Your task to perform on an android device: Find coffee shops on Maps Image 0: 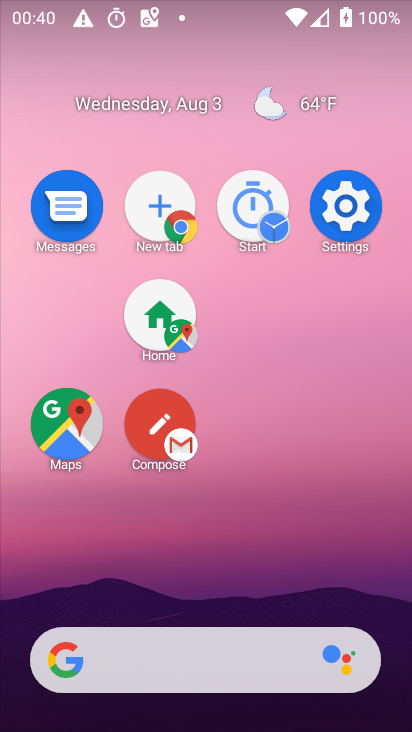
Step 0: drag from (243, 248) to (230, 151)
Your task to perform on an android device: Find coffee shops on Maps Image 1: 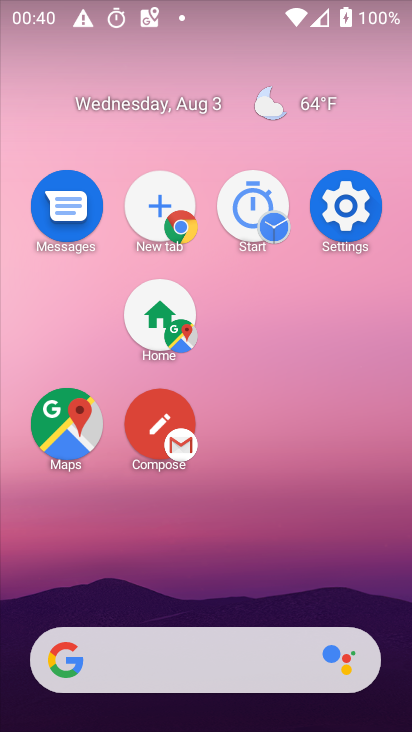
Step 1: drag from (378, 551) to (332, 193)
Your task to perform on an android device: Find coffee shops on Maps Image 2: 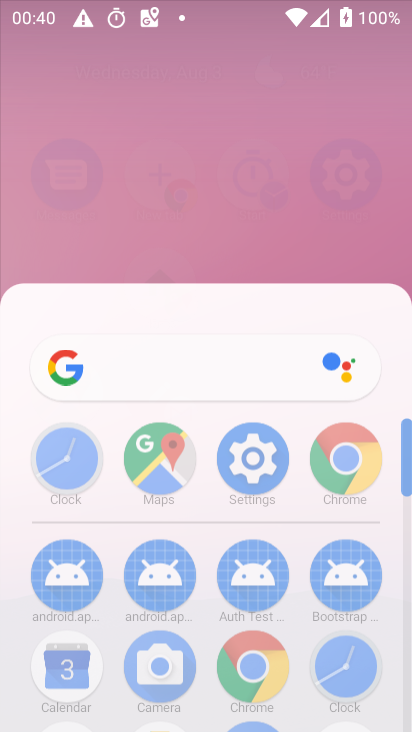
Step 2: drag from (353, 411) to (319, 173)
Your task to perform on an android device: Find coffee shops on Maps Image 3: 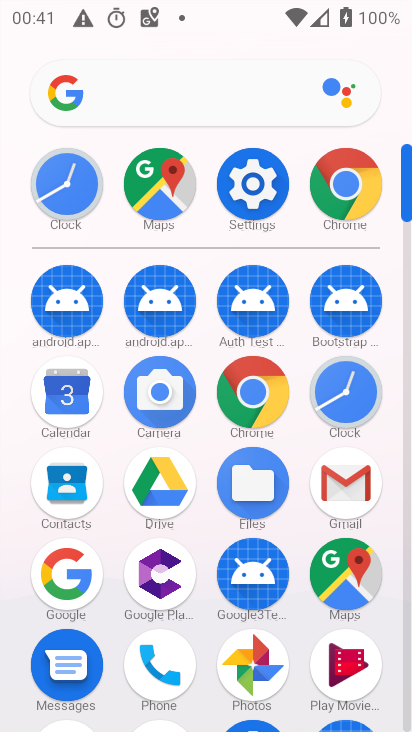
Step 3: click (348, 569)
Your task to perform on an android device: Find coffee shops on Maps Image 4: 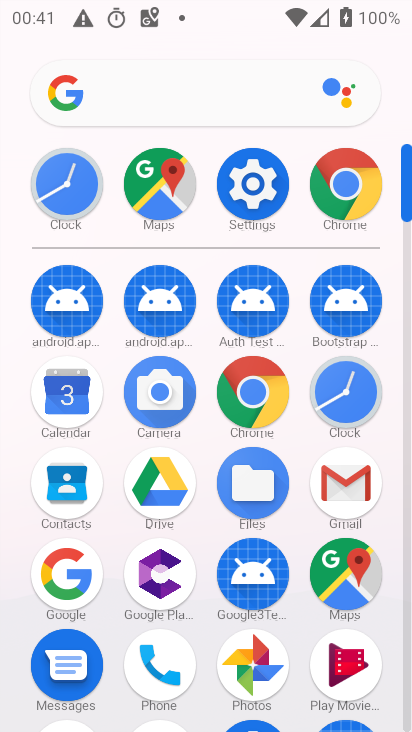
Step 4: click (350, 571)
Your task to perform on an android device: Find coffee shops on Maps Image 5: 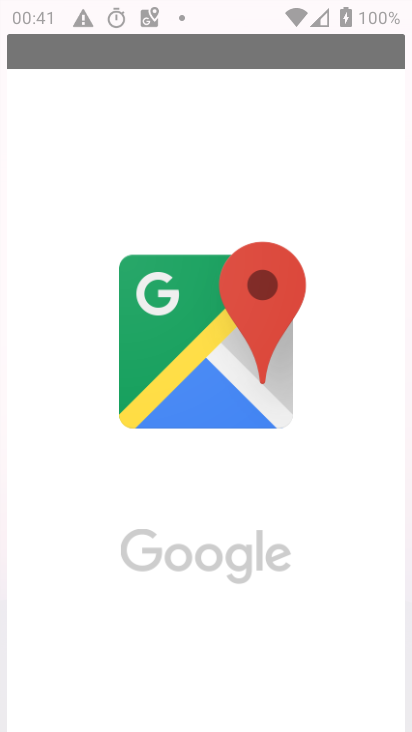
Step 5: click (365, 586)
Your task to perform on an android device: Find coffee shops on Maps Image 6: 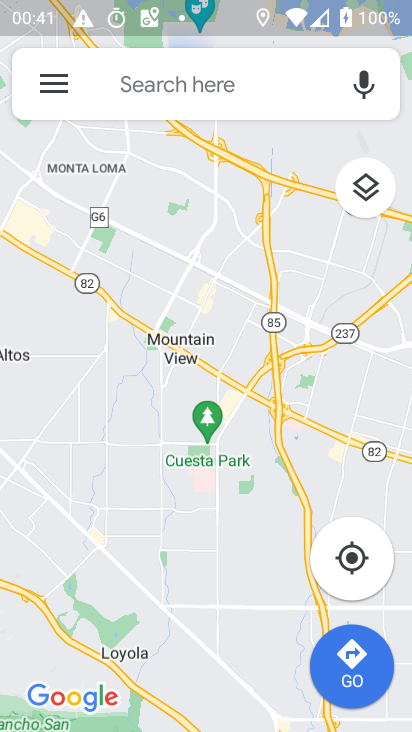
Step 6: click (110, 78)
Your task to perform on an android device: Find coffee shops on Maps Image 7: 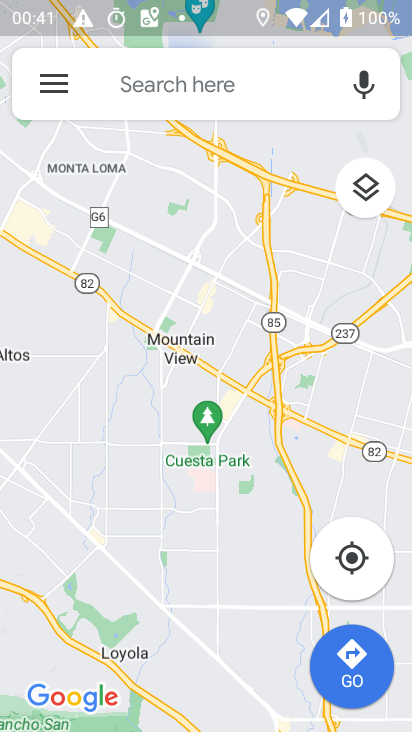
Step 7: click (125, 105)
Your task to perform on an android device: Find coffee shops on Maps Image 8: 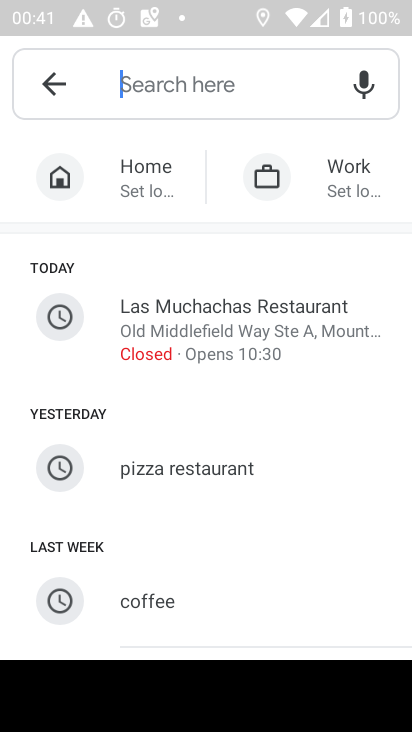
Step 8: type "cofee"
Your task to perform on an android device: Find coffee shops on Maps Image 9: 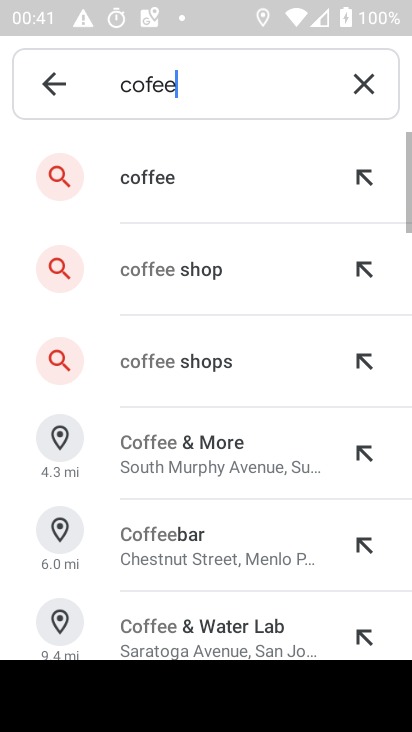
Step 9: click (175, 184)
Your task to perform on an android device: Find coffee shops on Maps Image 10: 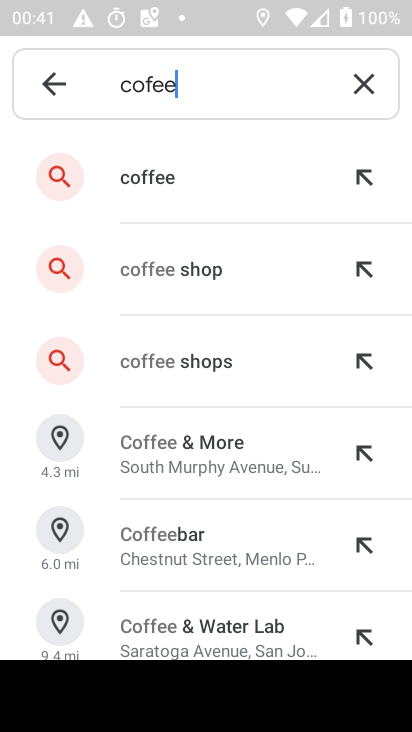
Step 10: click (175, 184)
Your task to perform on an android device: Find coffee shops on Maps Image 11: 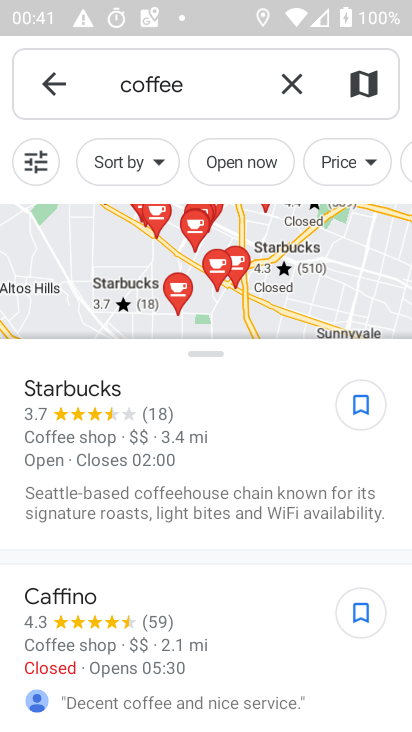
Step 11: click (105, 420)
Your task to perform on an android device: Find coffee shops on Maps Image 12: 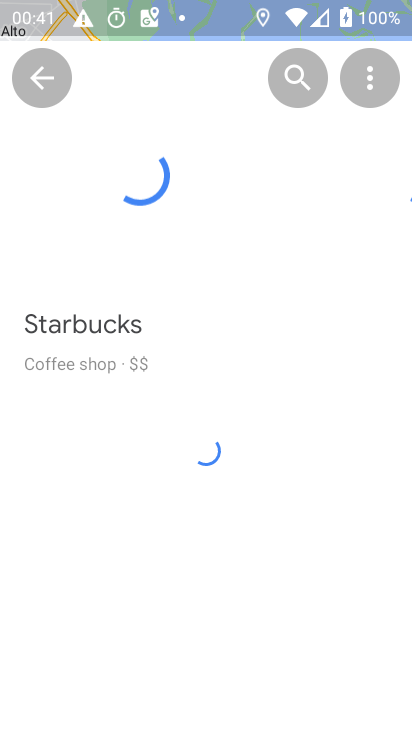
Step 12: task complete